Your task to perform on an android device: toggle notification dots Image 0: 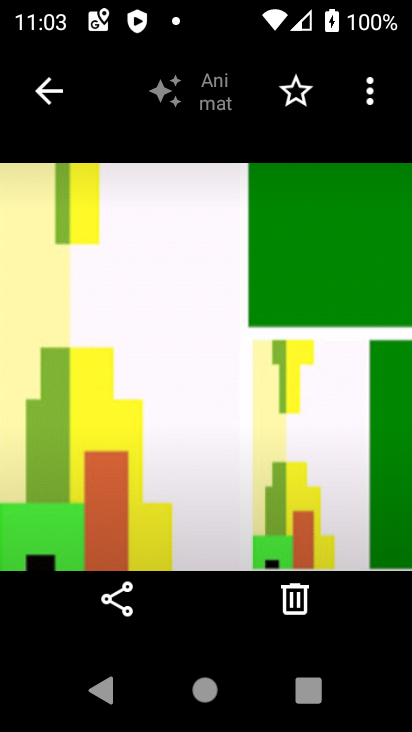
Step 0: press home button
Your task to perform on an android device: toggle notification dots Image 1: 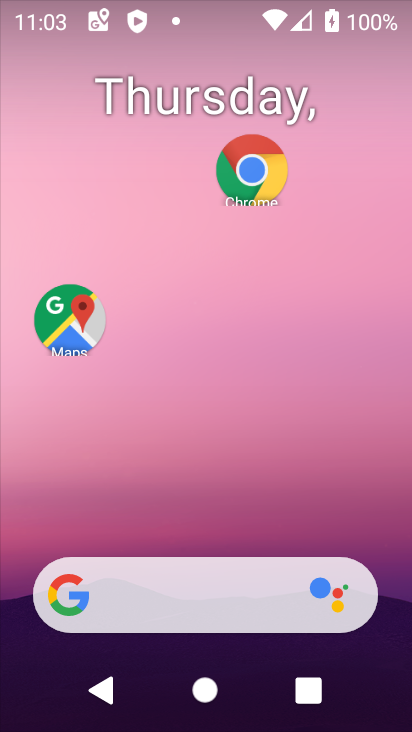
Step 1: drag from (204, 556) to (231, 166)
Your task to perform on an android device: toggle notification dots Image 2: 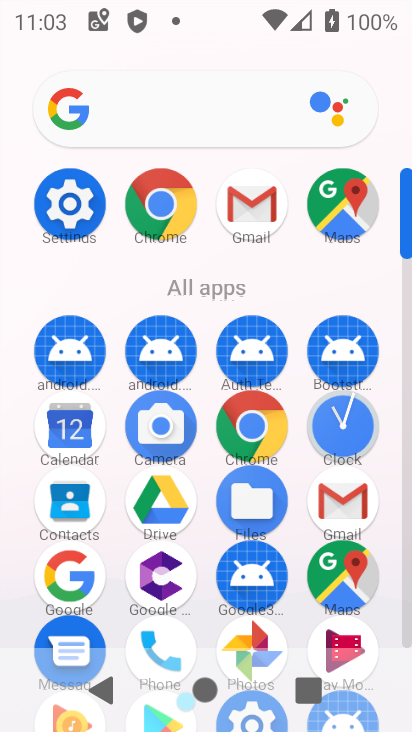
Step 2: click (60, 216)
Your task to perform on an android device: toggle notification dots Image 3: 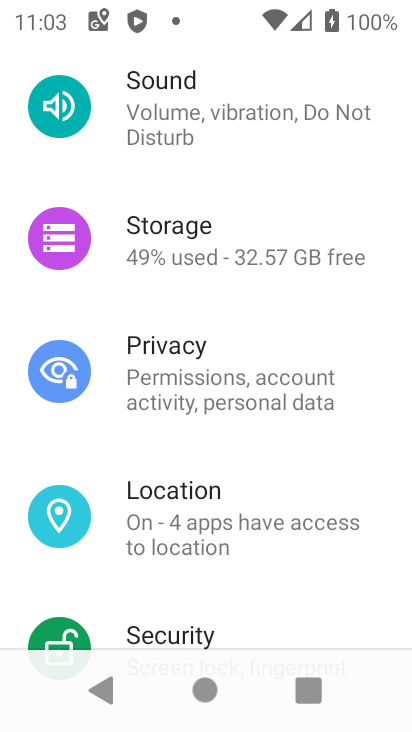
Step 3: drag from (173, 590) to (162, 254)
Your task to perform on an android device: toggle notification dots Image 4: 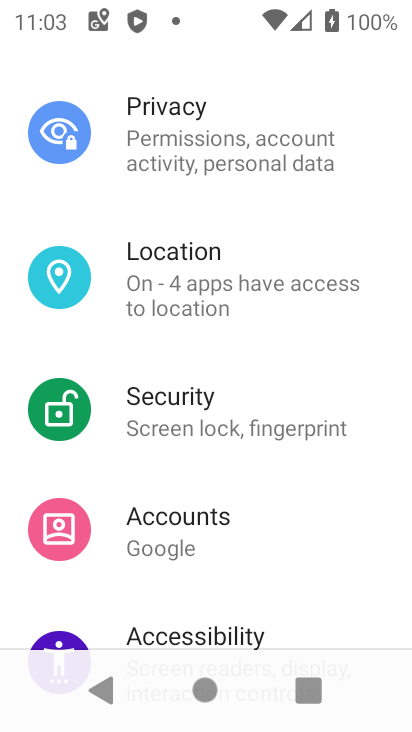
Step 4: drag from (162, 614) to (172, 327)
Your task to perform on an android device: toggle notification dots Image 5: 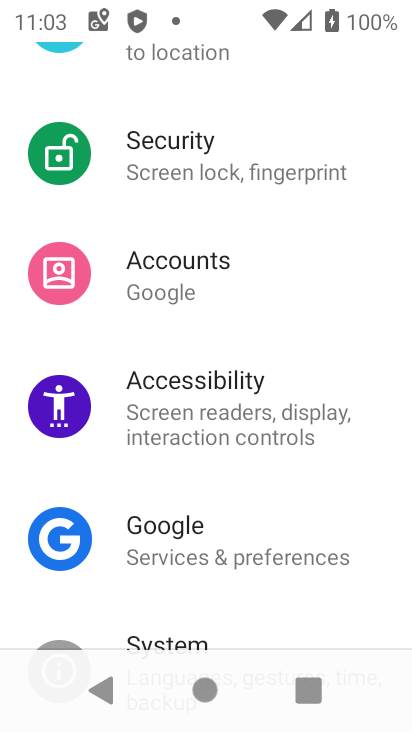
Step 5: drag from (172, 629) to (203, 349)
Your task to perform on an android device: toggle notification dots Image 6: 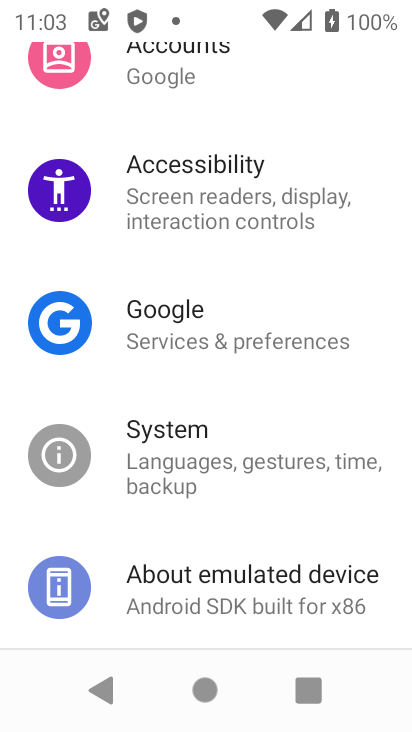
Step 6: drag from (232, 135) to (243, 556)
Your task to perform on an android device: toggle notification dots Image 7: 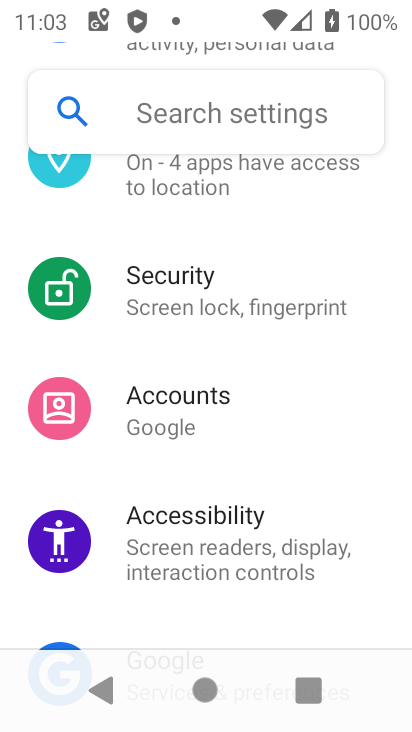
Step 7: drag from (237, 191) to (268, 493)
Your task to perform on an android device: toggle notification dots Image 8: 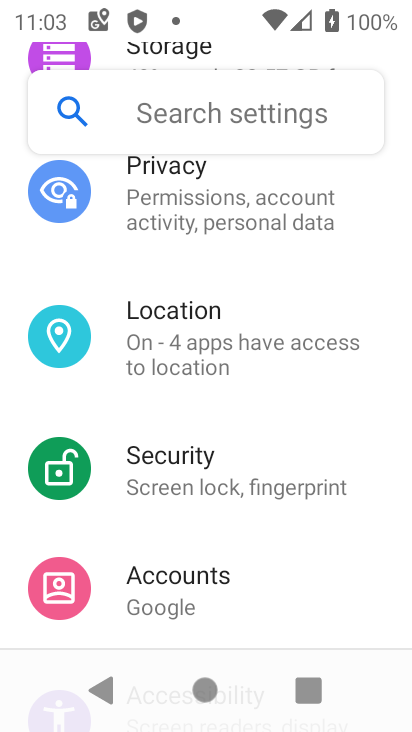
Step 8: drag from (253, 179) to (295, 500)
Your task to perform on an android device: toggle notification dots Image 9: 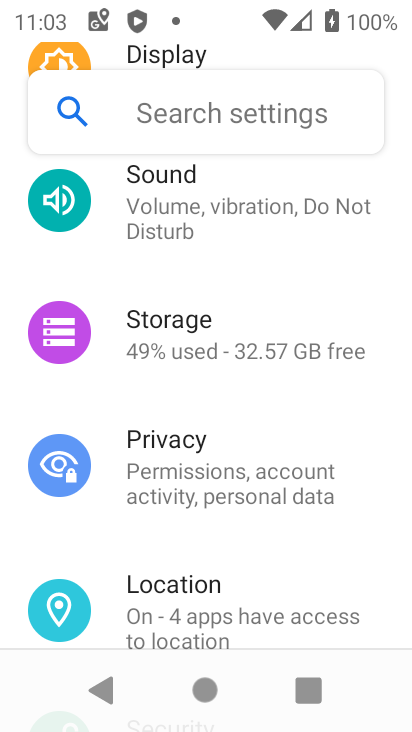
Step 9: drag from (192, 172) to (216, 536)
Your task to perform on an android device: toggle notification dots Image 10: 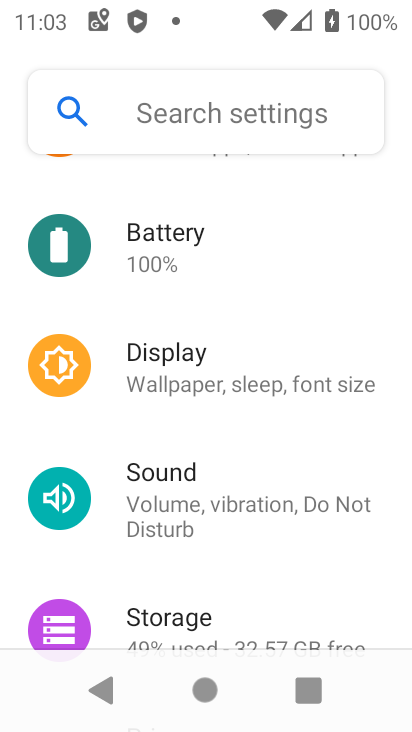
Step 10: drag from (190, 175) to (230, 533)
Your task to perform on an android device: toggle notification dots Image 11: 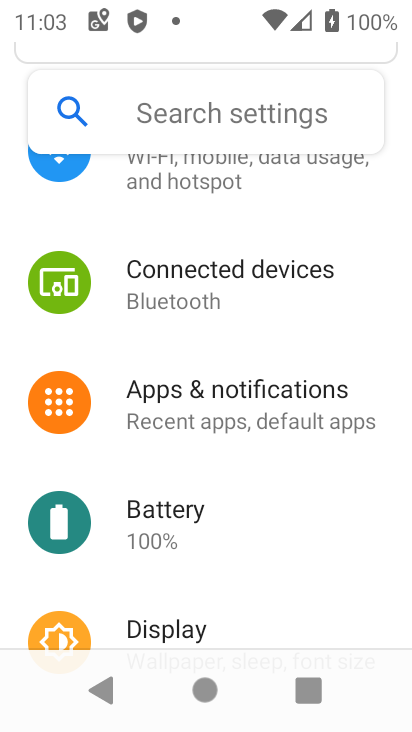
Step 11: click (203, 409)
Your task to perform on an android device: toggle notification dots Image 12: 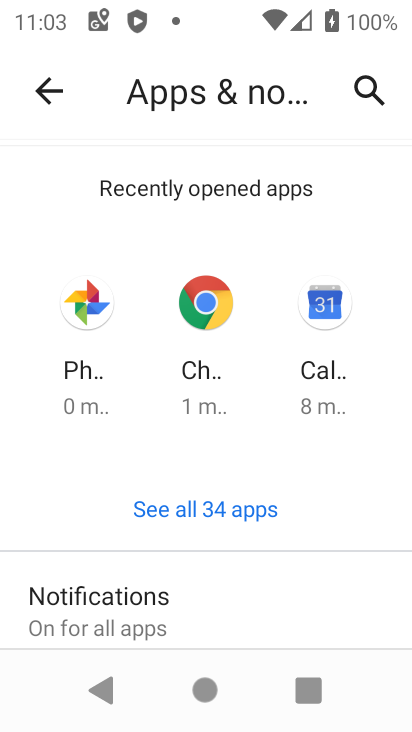
Step 12: click (99, 614)
Your task to perform on an android device: toggle notification dots Image 13: 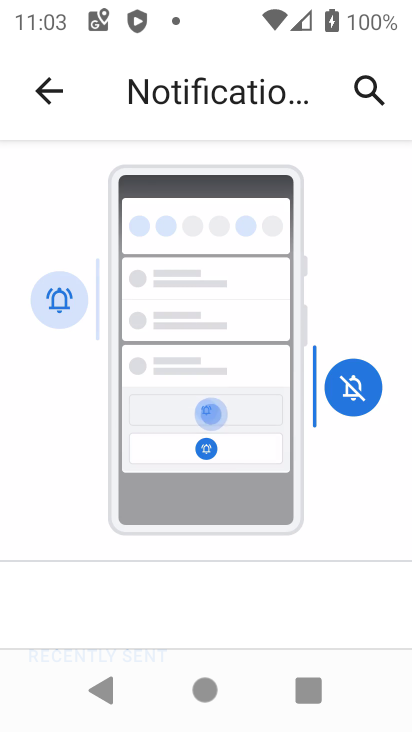
Step 13: drag from (270, 585) to (291, 313)
Your task to perform on an android device: toggle notification dots Image 14: 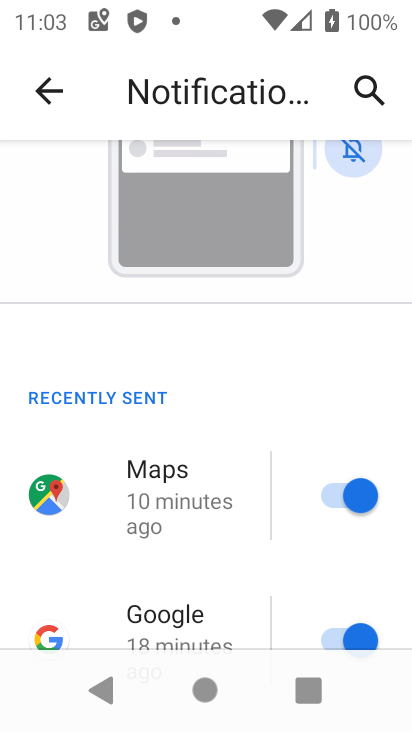
Step 14: drag from (250, 616) to (286, 230)
Your task to perform on an android device: toggle notification dots Image 15: 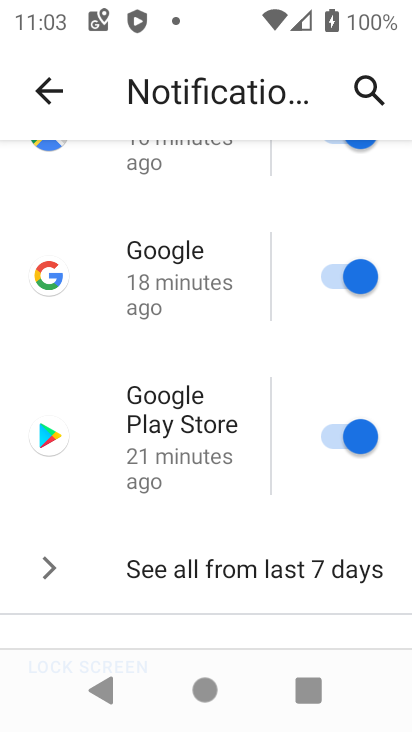
Step 15: drag from (227, 632) to (223, 323)
Your task to perform on an android device: toggle notification dots Image 16: 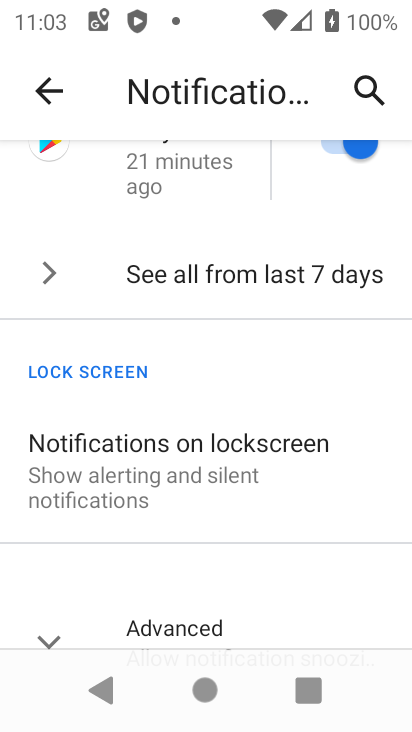
Step 16: drag from (212, 642) to (206, 404)
Your task to perform on an android device: toggle notification dots Image 17: 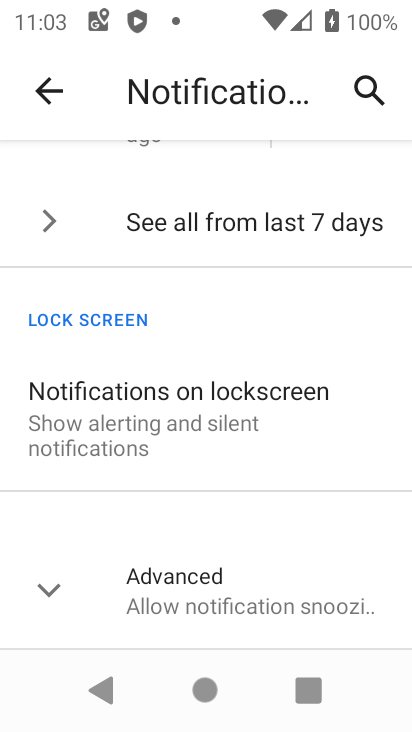
Step 17: click (214, 575)
Your task to perform on an android device: toggle notification dots Image 18: 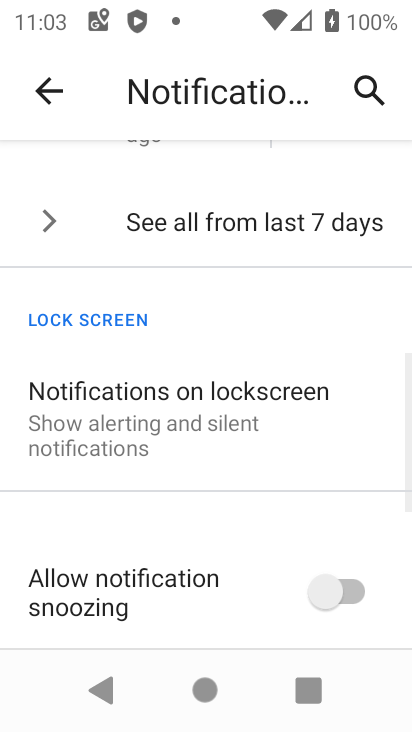
Step 18: drag from (213, 614) to (230, 363)
Your task to perform on an android device: toggle notification dots Image 19: 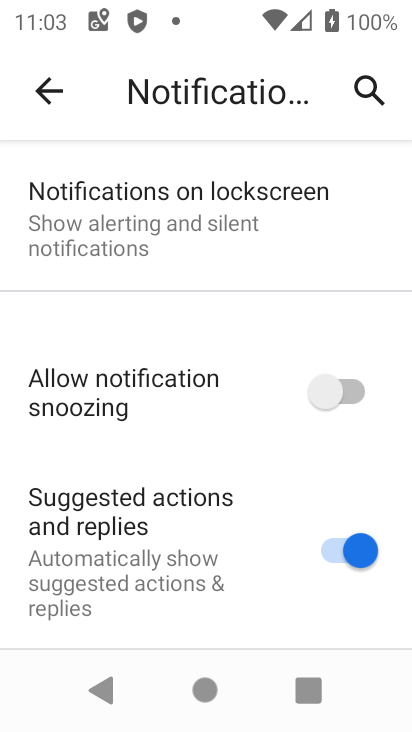
Step 19: drag from (278, 611) to (301, 335)
Your task to perform on an android device: toggle notification dots Image 20: 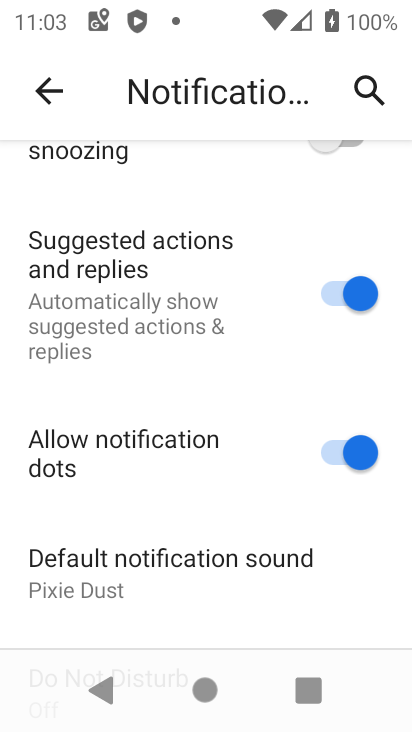
Step 20: click (330, 455)
Your task to perform on an android device: toggle notification dots Image 21: 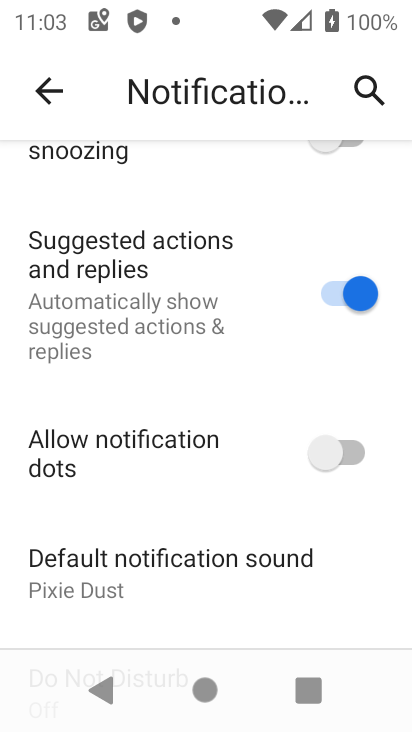
Step 21: task complete